Your task to perform on an android device: change notifications settings Image 0: 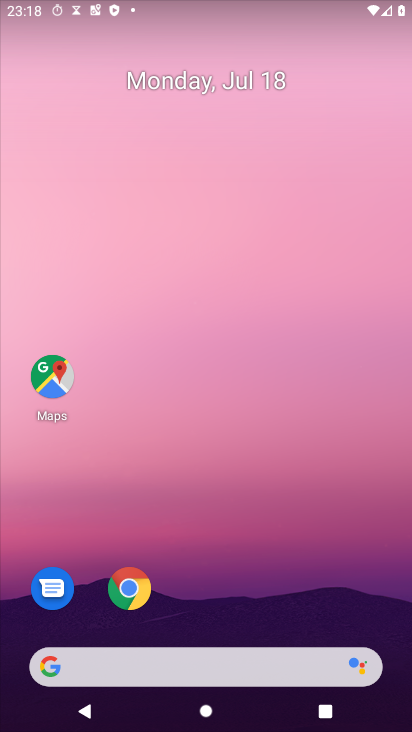
Step 0: drag from (238, 615) to (284, 213)
Your task to perform on an android device: change notifications settings Image 1: 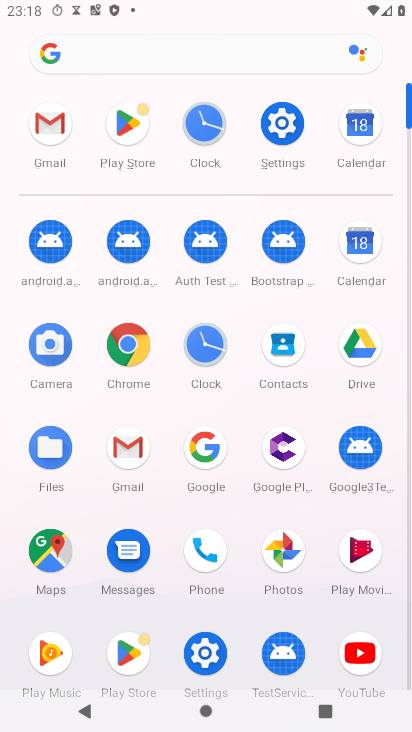
Step 1: click (272, 124)
Your task to perform on an android device: change notifications settings Image 2: 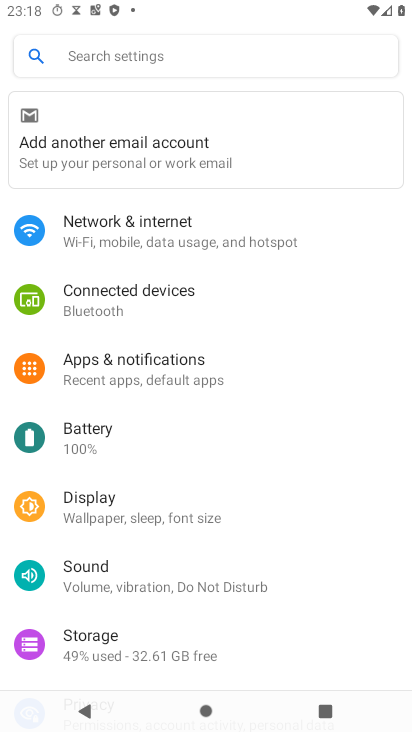
Step 2: click (172, 369)
Your task to perform on an android device: change notifications settings Image 3: 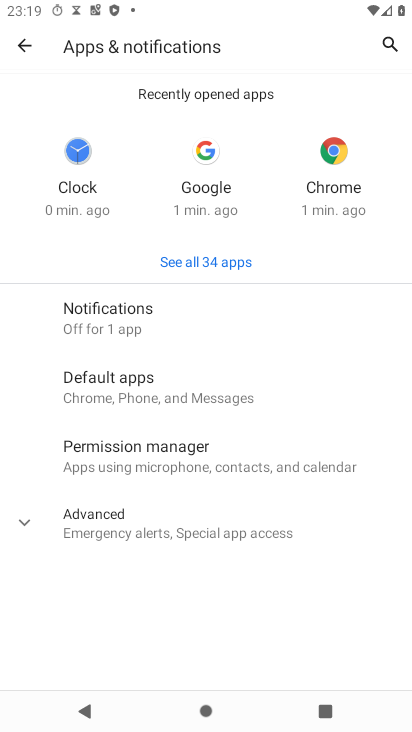
Step 3: click (121, 315)
Your task to perform on an android device: change notifications settings Image 4: 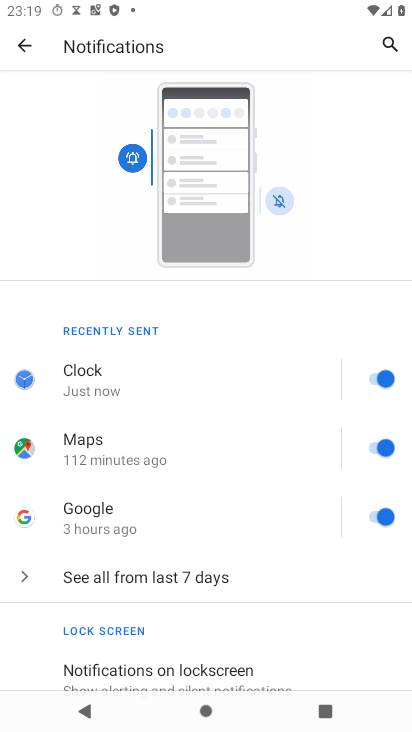
Step 4: click (372, 514)
Your task to perform on an android device: change notifications settings Image 5: 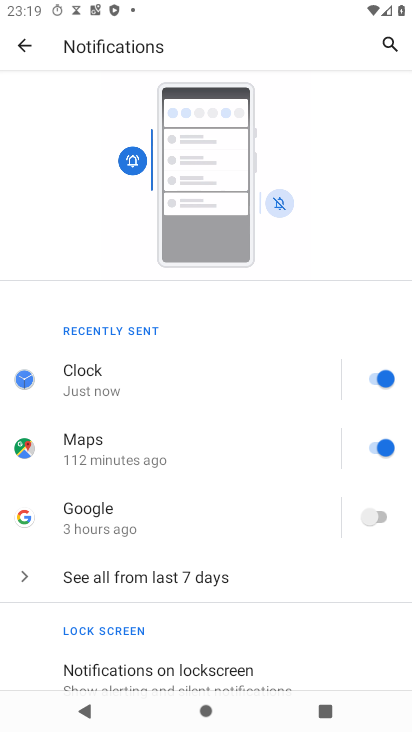
Step 5: task complete